Your task to perform on an android device: Show me productivity apps on the Play Store Image 0: 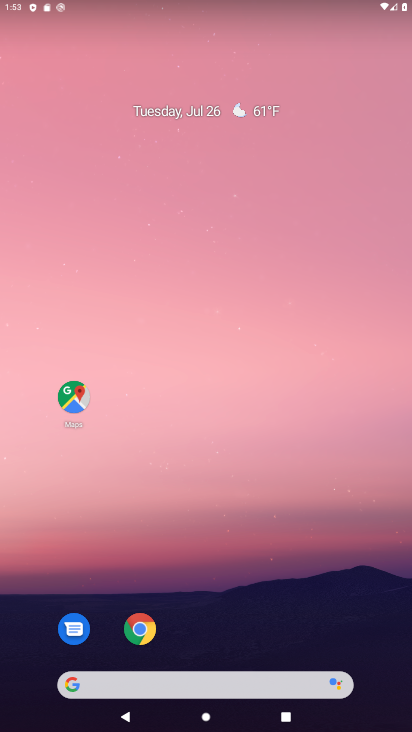
Step 0: drag from (250, 596) to (224, 86)
Your task to perform on an android device: Show me productivity apps on the Play Store Image 1: 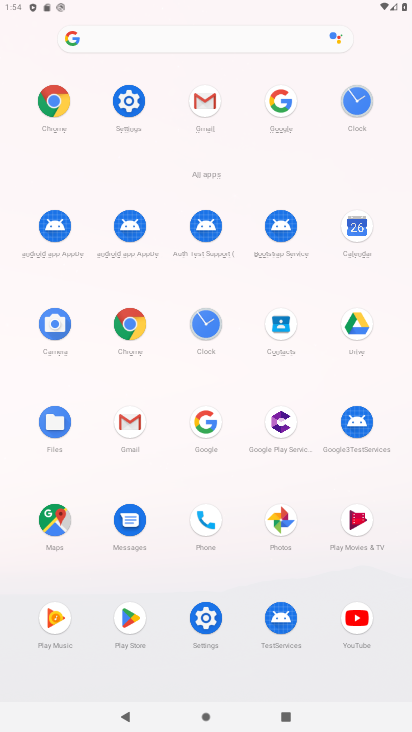
Step 1: click (127, 619)
Your task to perform on an android device: Show me productivity apps on the Play Store Image 2: 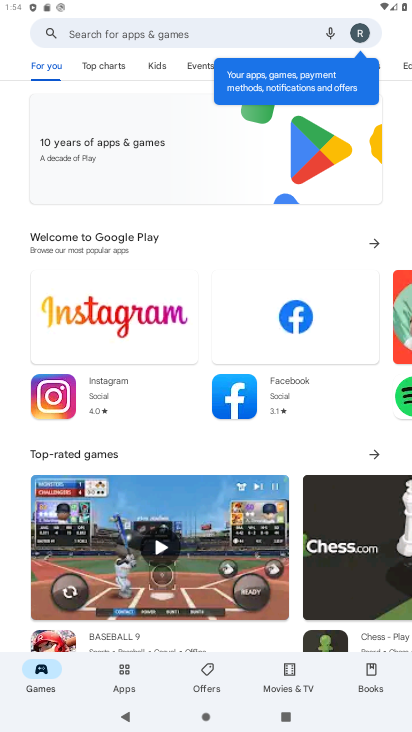
Step 2: click (123, 667)
Your task to perform on an android device: Show me productivity apps on the Play Store Image 3: 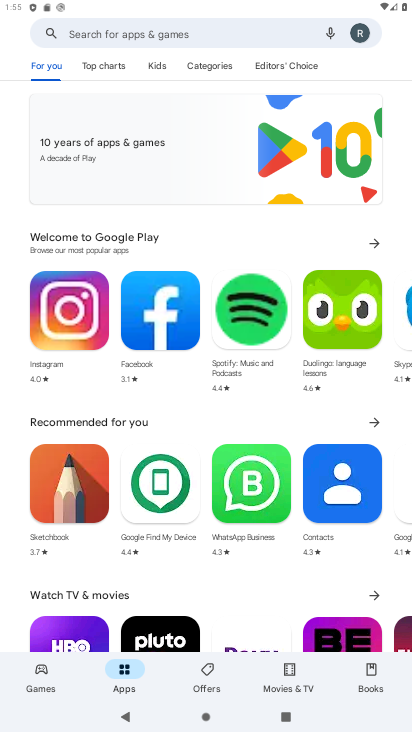
Step 3: task complete